Your task to perform on an android device: Is it going to rain tomorrow? Image 0: 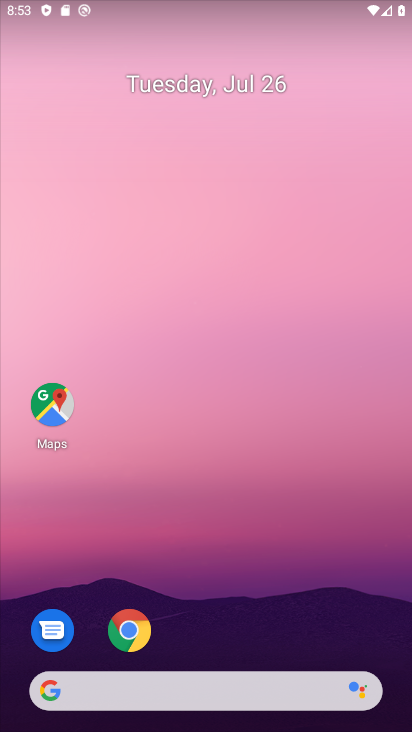
Step 0: drag from (333, 499) to (353, 32)
Your task to perform on an android device: Is it going to rain tomorrow? Image 1: 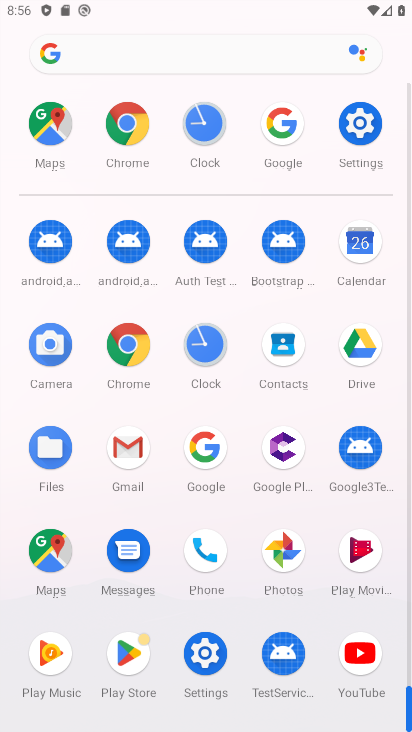
Step 1: click (214, 451)
Your task to perform on an android device: Is it going to rain tomorrow? Image 2: 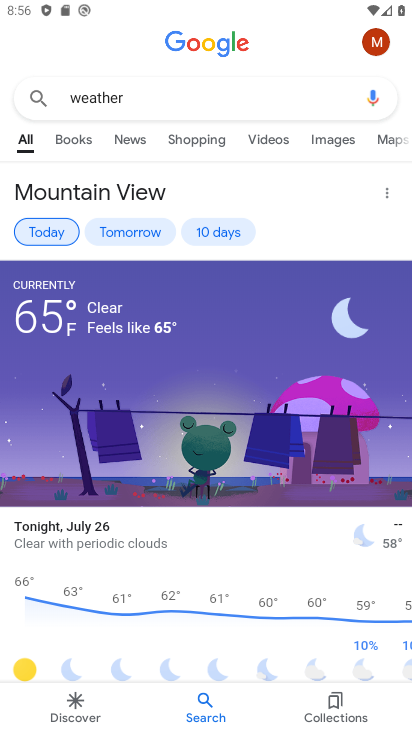
Step 2: task complete